Your task to perform on an android device: check google app version Image 0: 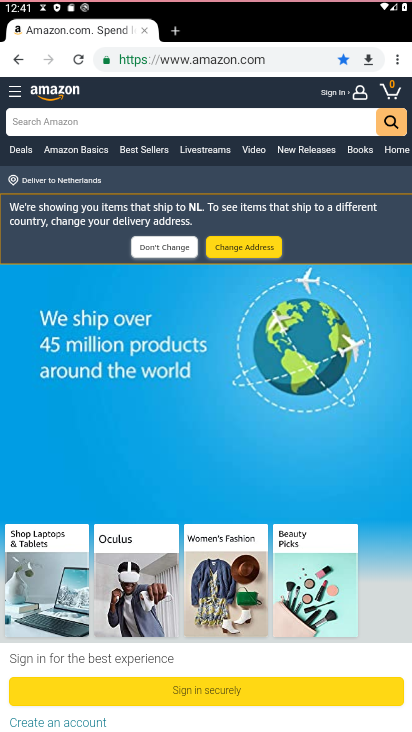
Step 0: press home button
Your task to perform on an android device: check google app version Image 1: 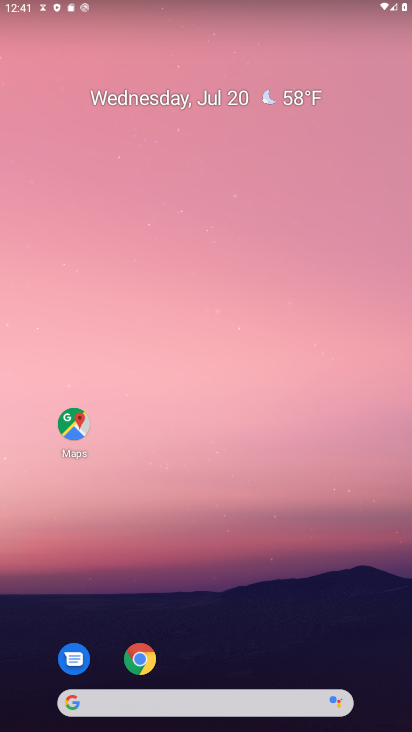
Step 1: drag from (214, 633) to (236, 0)
Your task to perform on an android device: check google app version Image 2: 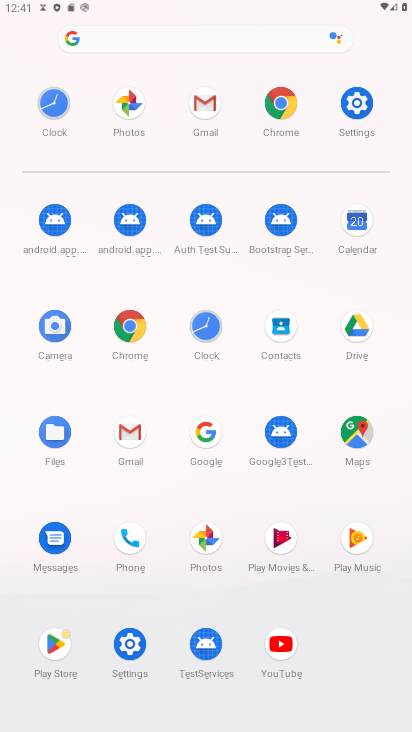
Step 2: click (204, 427)
Your task to perform on an android device: check google app version Image 3: 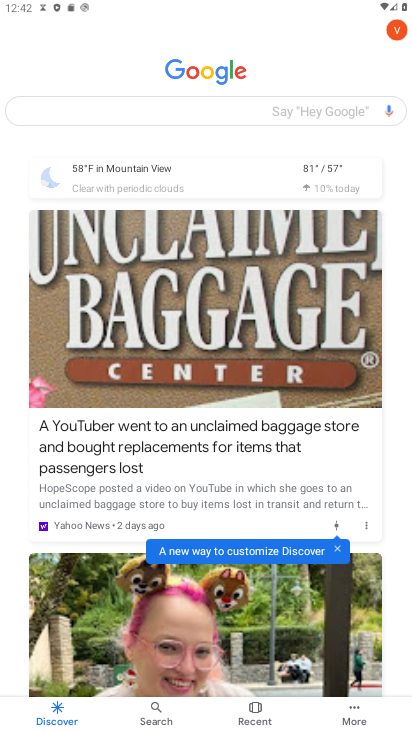
Step 3: click (354, 710)
Your task to perform on an android device: check google app version Image 4: 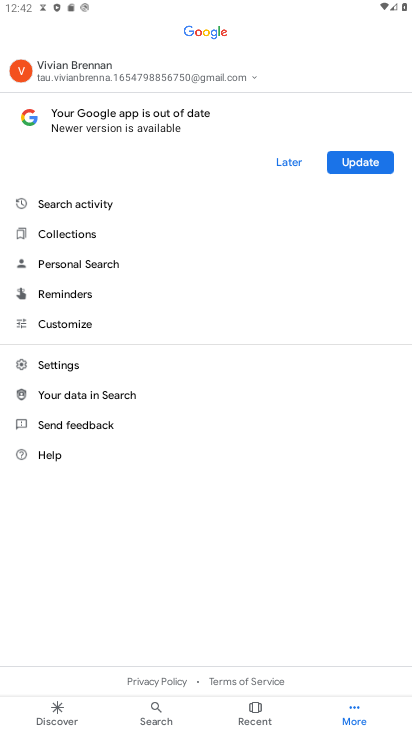
Step 4: click (86, 360)
Your task to perform on an android device: check google app version Image 5: 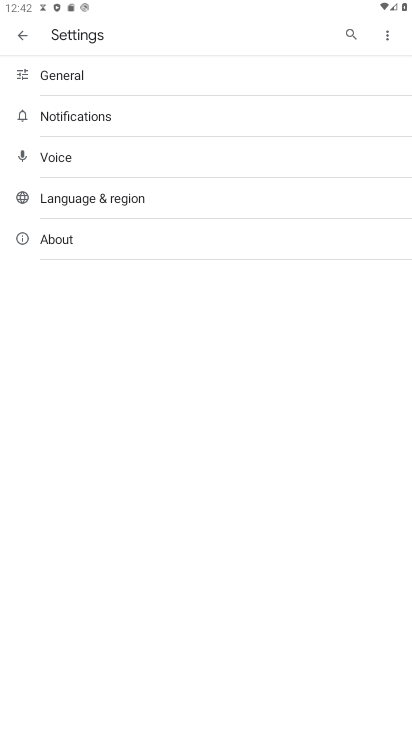
Step 5: click (87, 244)
Your task to perform on an android device: check google app version Image 6: 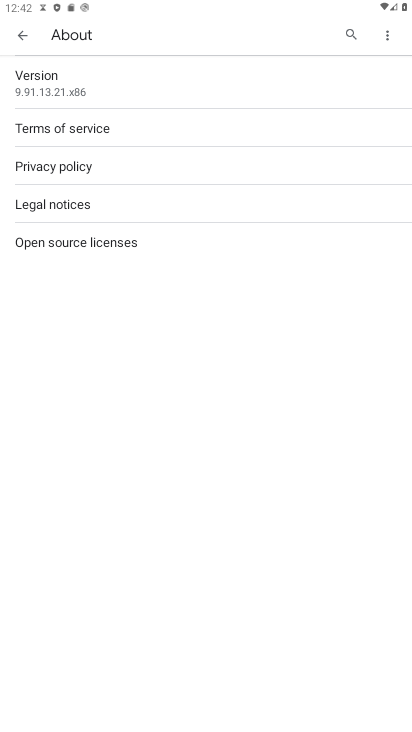
Step 6: task complete